Your task to perform on an android device: Go to notification settings Image 0: 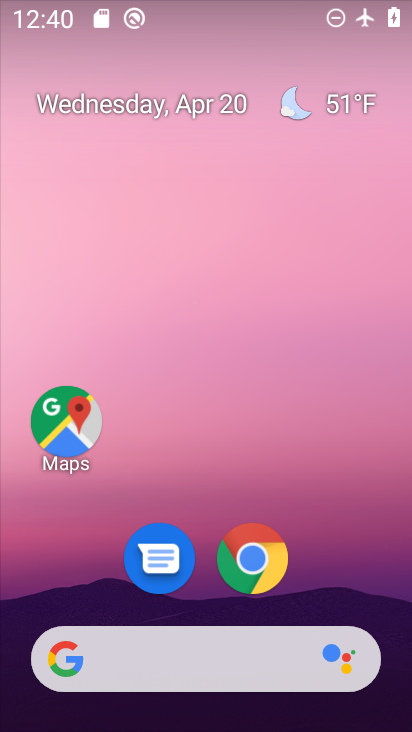
Step 0: drag from (352, 594) to (298, 218)
Your task to perform on an android device: Go to notification settings Image 1: 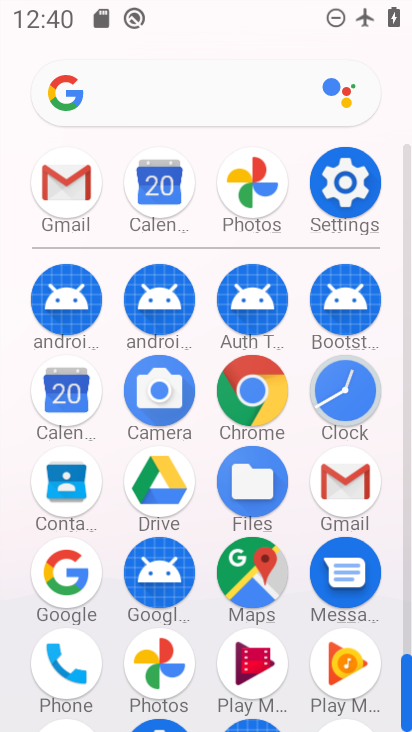
Step 1: drag from (407, 639) to (406, 592)
Your task to perform on an android device: Go to notification settings Image 2: 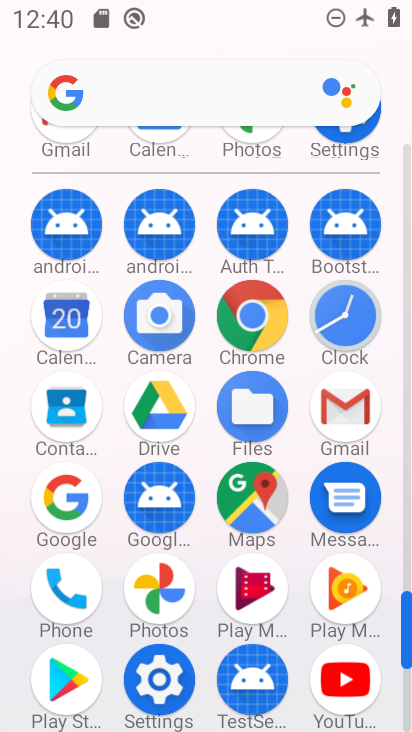
Step 2: click (157, 680)
Your task to perform on an android device: Go to notification settings Image 3: 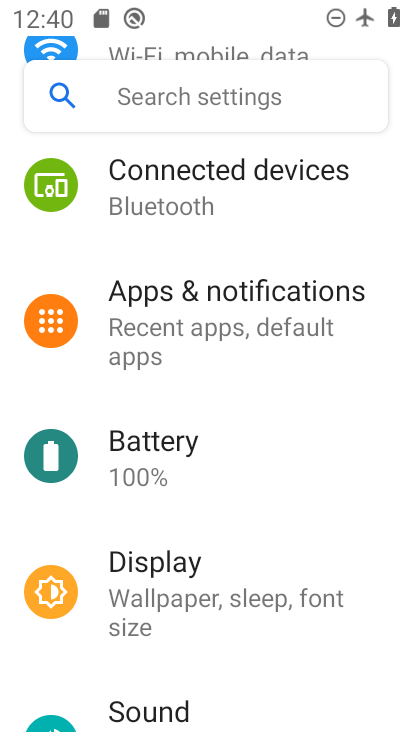
Step 3: click (178, 297)
Your task to perform on an android device: Go to notification settings Image 4: 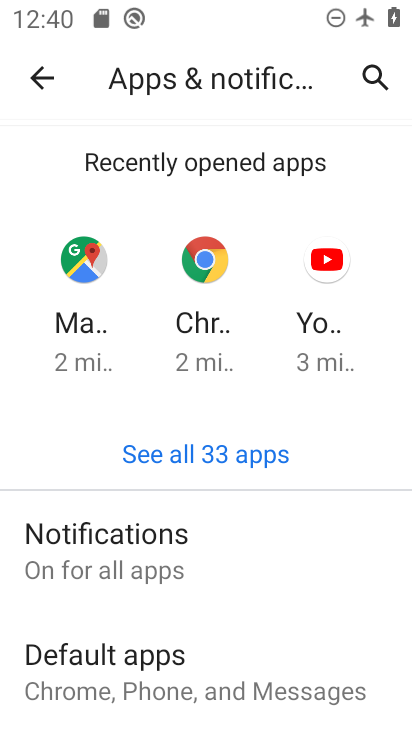
Step 4: click (90, 536)
Your task to perform on an android device: Go to notification settings Image 5: 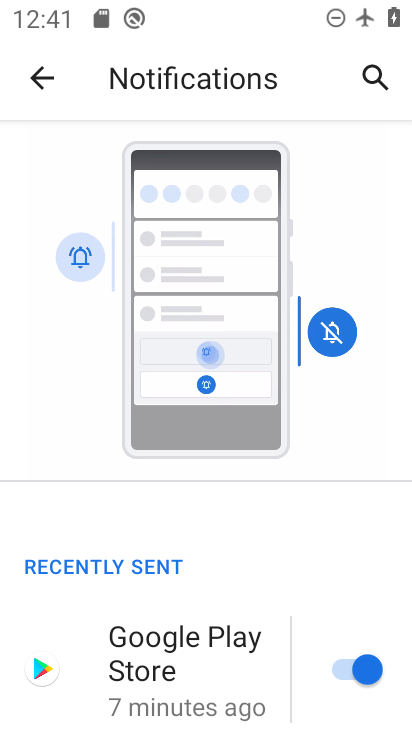
Step 5: drag from (282, 647) to (283, 360)
Your task to perform on an android device: Go to notification settings Image 6: 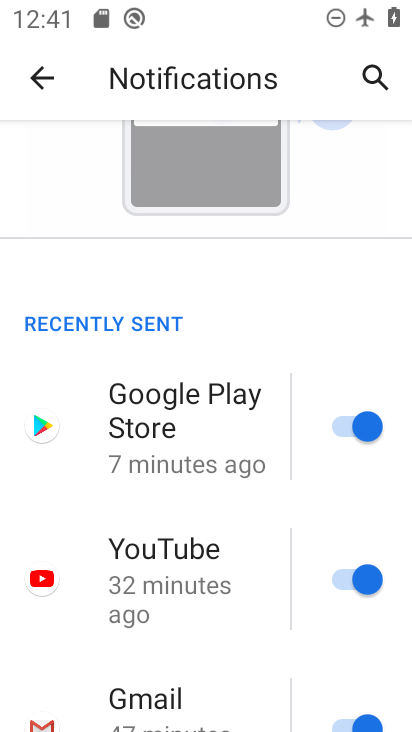
Step 6: drag from (284, 651) to (280, 319)
Your task to perform on an android device: Go to notification settings Image 7: 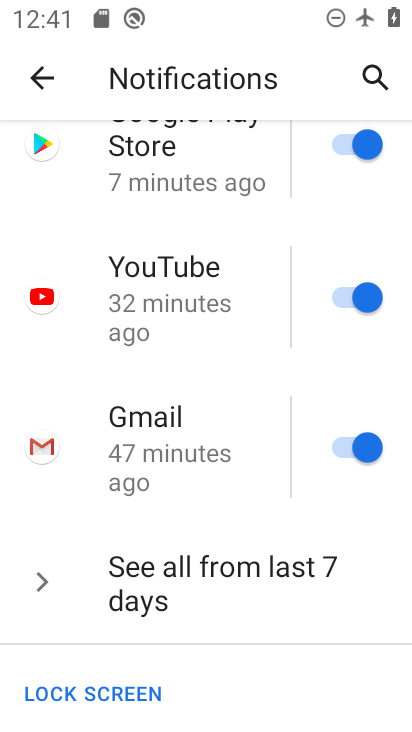
Step 7: drag from (266, 627) to (283, 260)
Your task to perform on an android device: Go to notification settings Image 8: 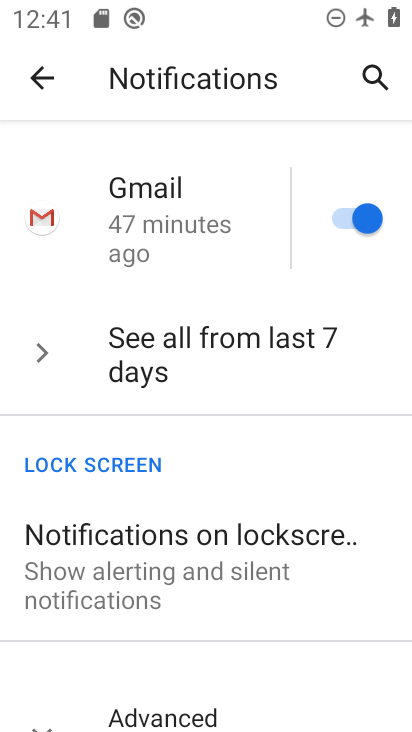
Step 8: drag from (271, 564) to (295, 282)
Your task to perform on an android device: Go to notification settings Image 9: 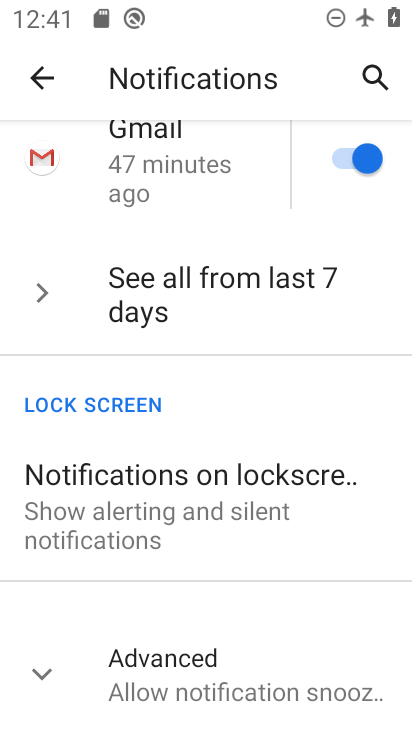
Step 9: click (41, 673)
Your task to perform on an android device: Go to notification settings Image 10: 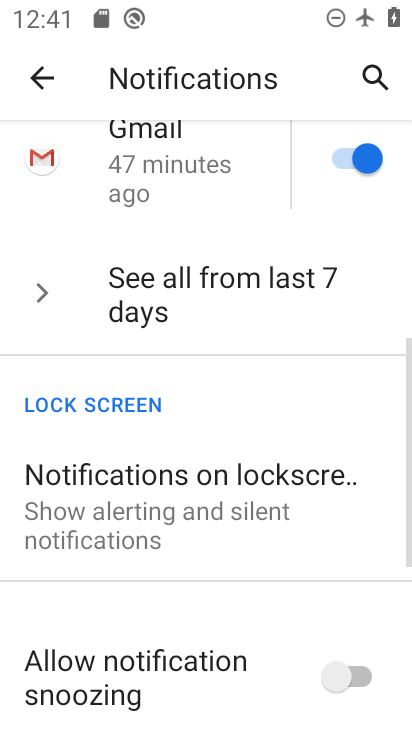
Step 10: task complete